Your task to perform on an android device: Open calendar and show me the third week of next month Image 0: 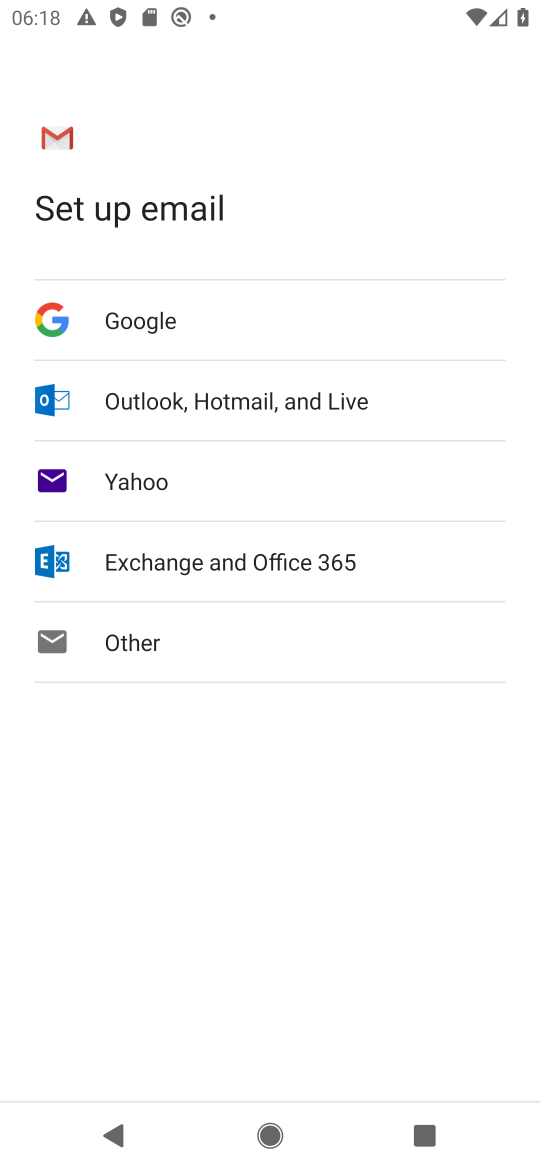
Step 0: press home button
Your task to perform on an android device: Open calendar and show me the third week of next month Image 1: 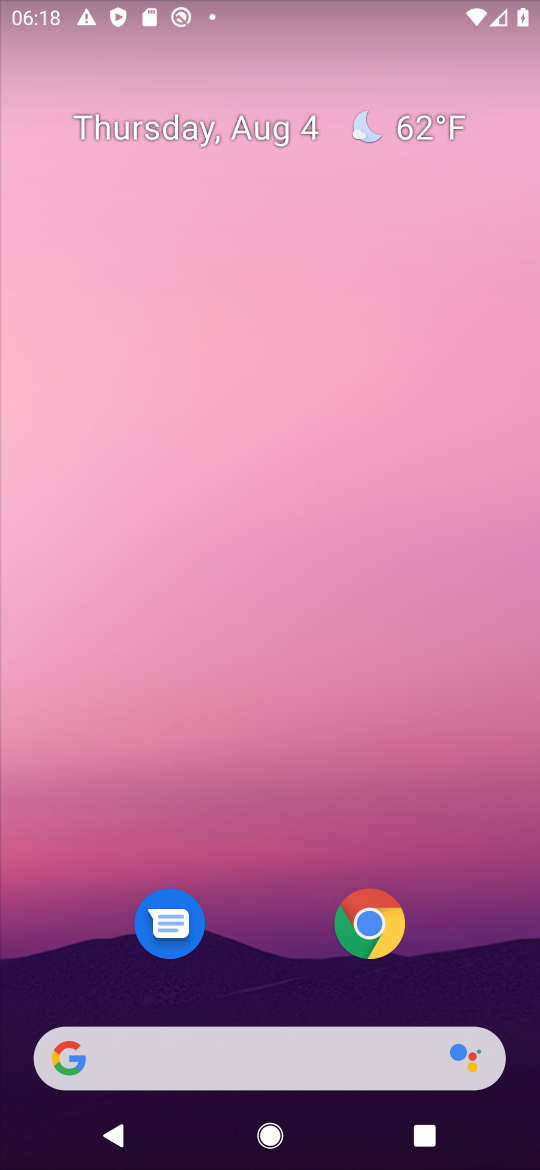
Step 1: drag from (476, 977) to (401, 293)
Your task to perform on an android device: Open calendar and show me the third week of next month Image 2: 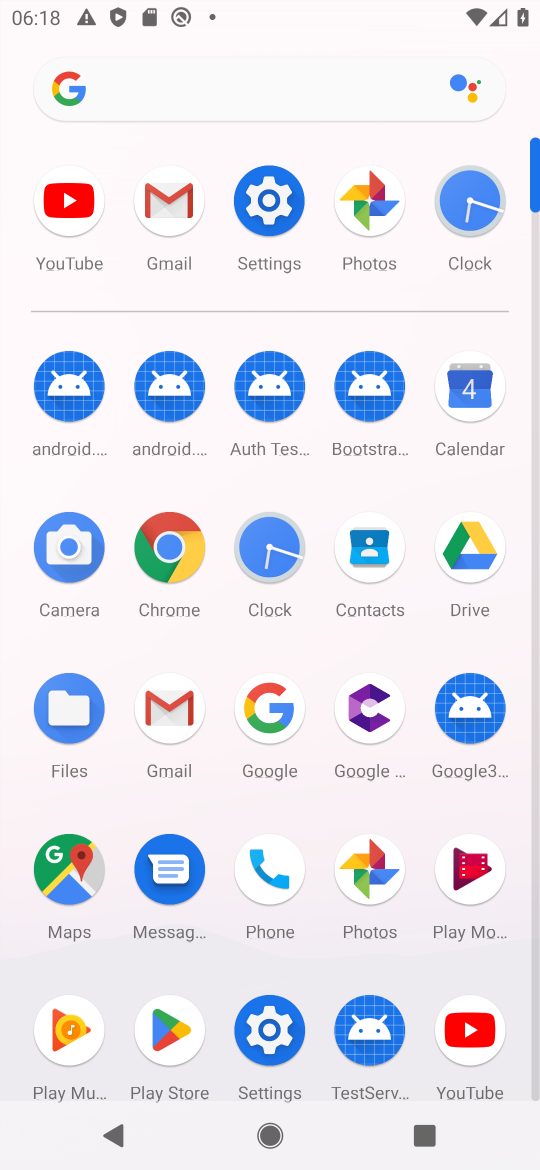
Step 2: click (465, 400)
Your task to perform on an android device: Open calendar and show me the third week of next month Image 3: 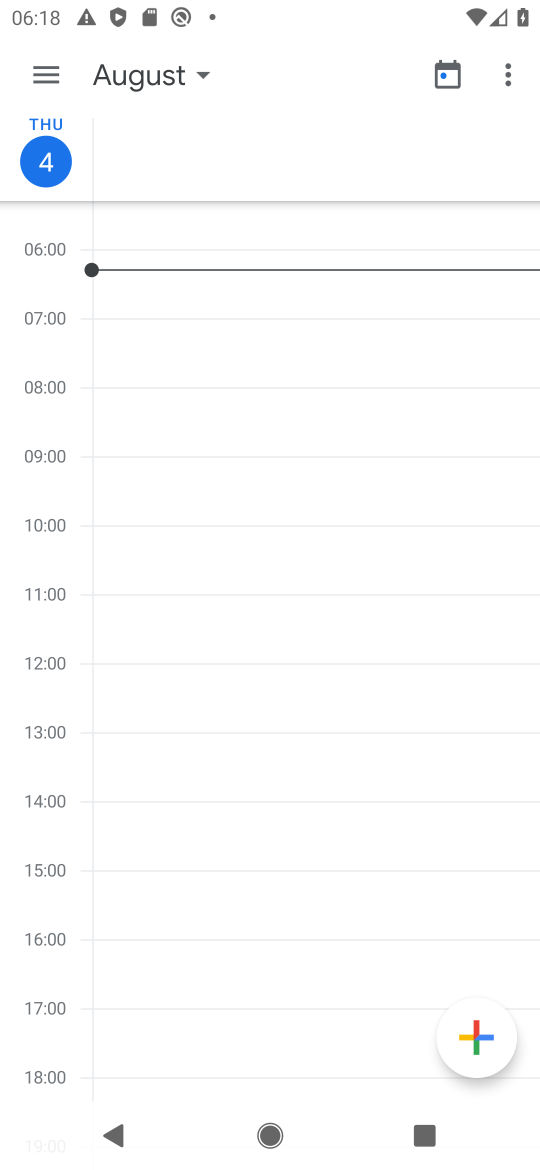
Step 3: click (142, 74)
Your task to perform on an android device: Open calendar and show me the third week of next month Image 4: 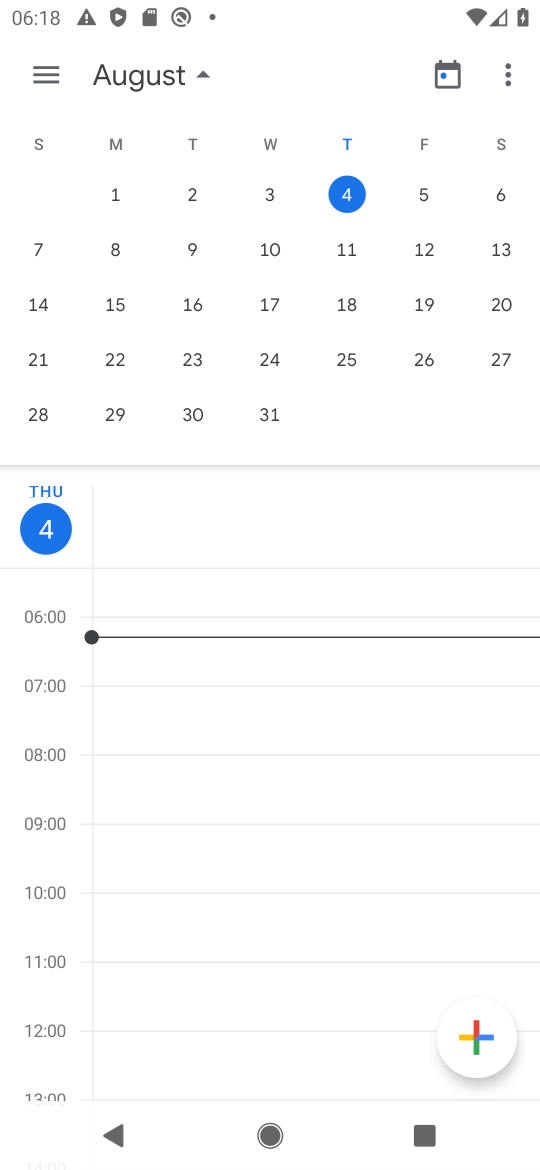
Step 4: drag from (431, 313) to (33, 324)
Your task to perform on an android device: Open calendar and show me the third week of next month Image 5: 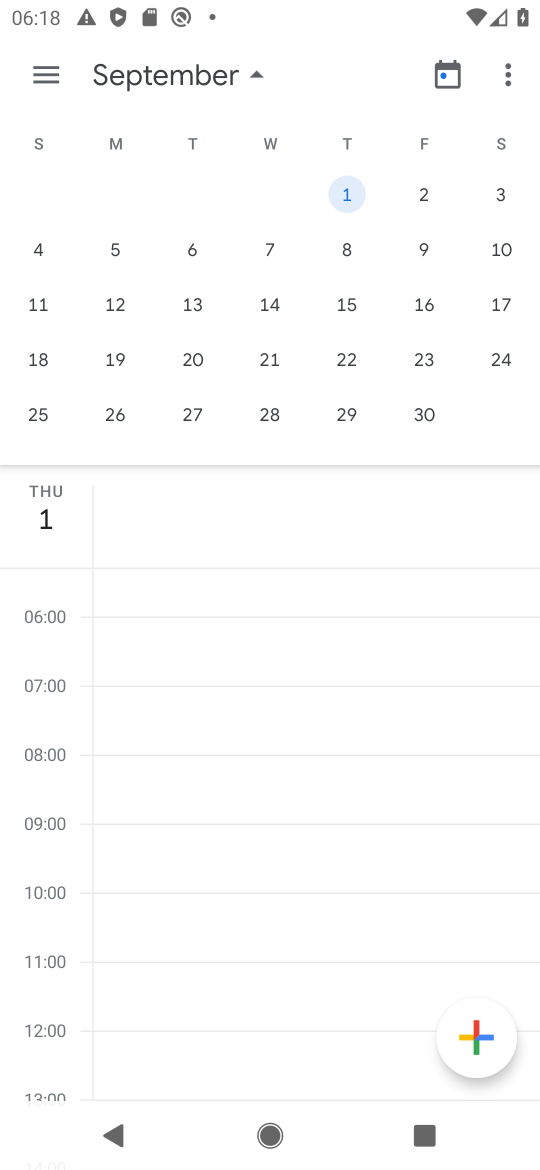
Step 5: click (267, 354)
Your task to perform on an android device: Open calendar and show me the third week of next month Image 6: 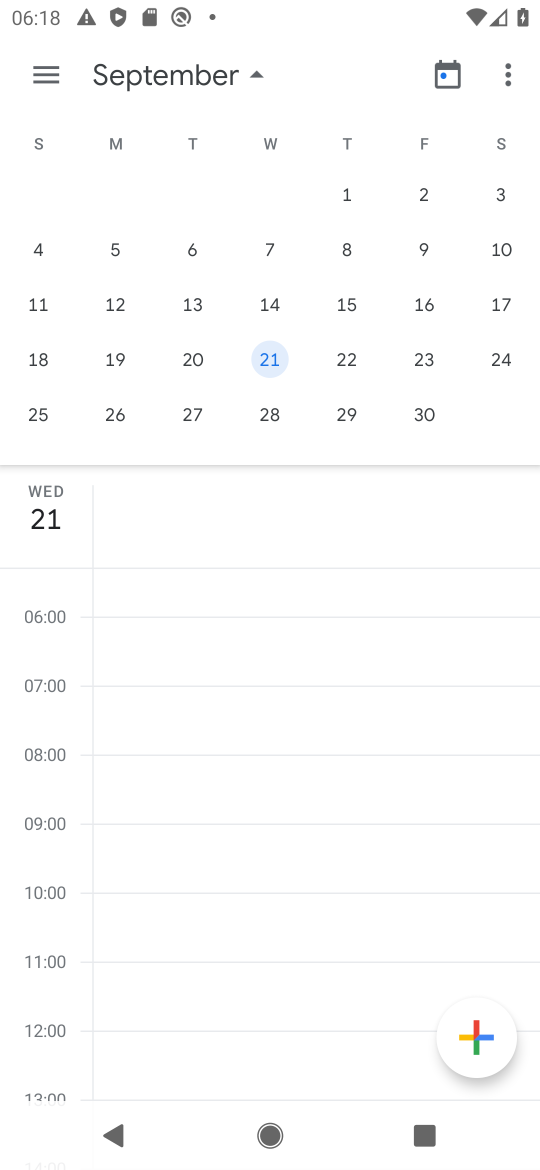
Step 6: click (45, 70)
Your task to perform on an android device: Open calendar and show me the third week of next month Image 7: 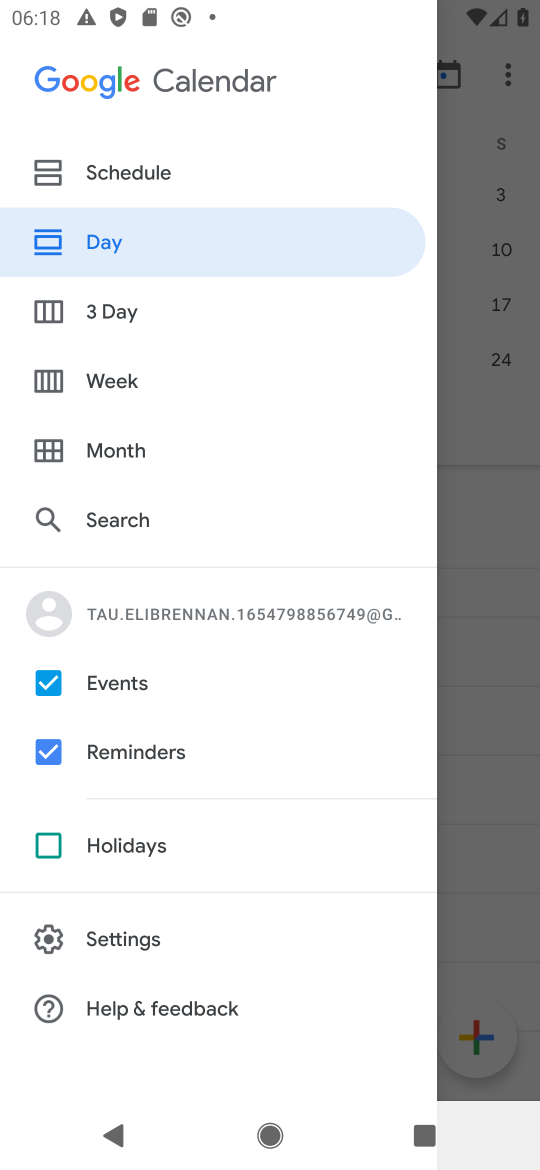
Step 7: click (109, 381)
Your task to perform on an android device: Open calendar and show me the third week of next month Image 8: 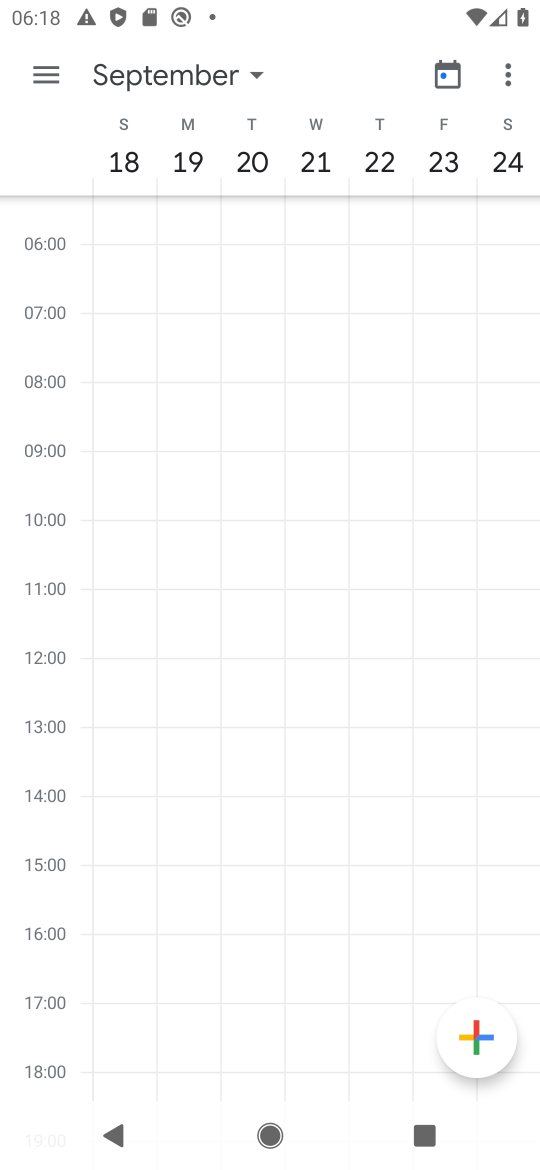
Step 8: task complete